Your task to perform on an android device: Go to accessibility settings Image 0: 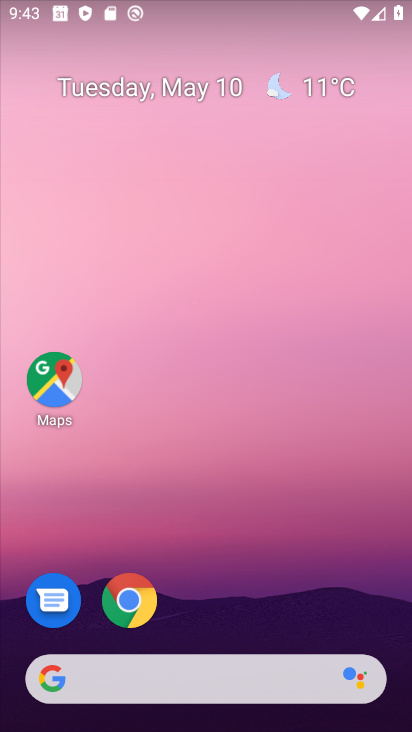
Step 0: drag from (262, 487) to (294, 79)
Your task to perform on an android device: Go to accessibility settings Image 1: 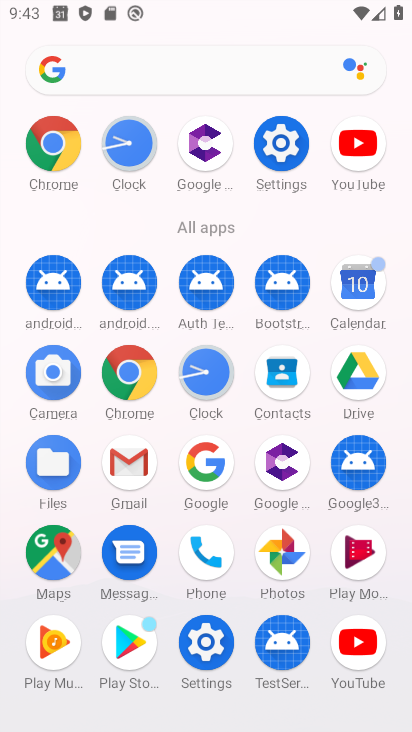
Step 1: click (264, 141)
Your task to perform on an android device: Go to accessibility settings Image 2: 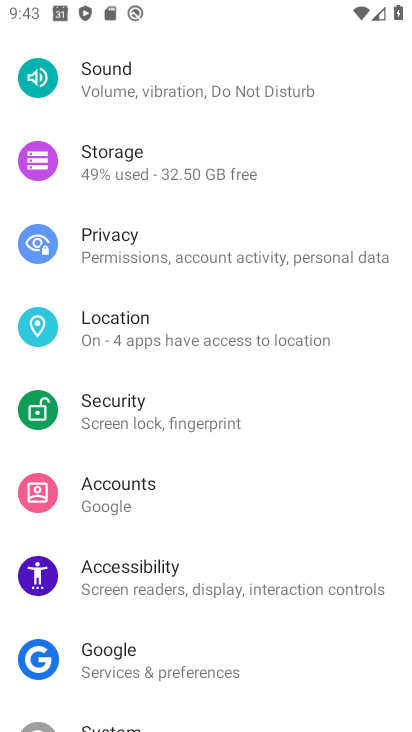
Step 2: drag from (121, 607) to (126, 212)
Your task to perform on an android device: Go to accessibility settings Image 3: 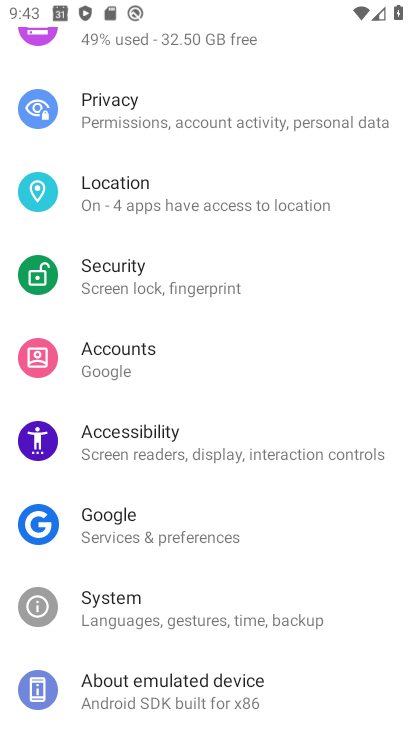
Step 3: click (132, 433)
Your task to perform on an android device: Go to accessibility settings Image 4: 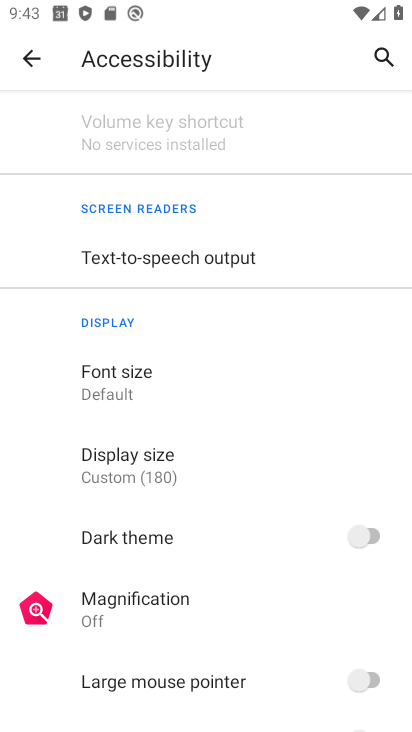
Step 4: task complete